Your task to perform on an android device: Open maps Image 0: 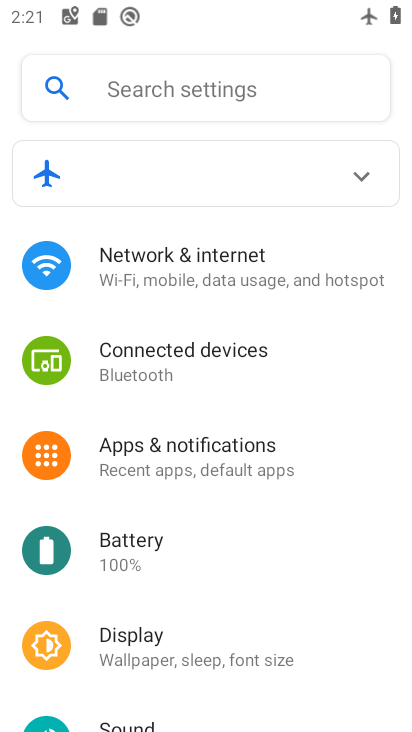
Step 0: press home button
Your task to perform on an android device: Open maps Image 1: 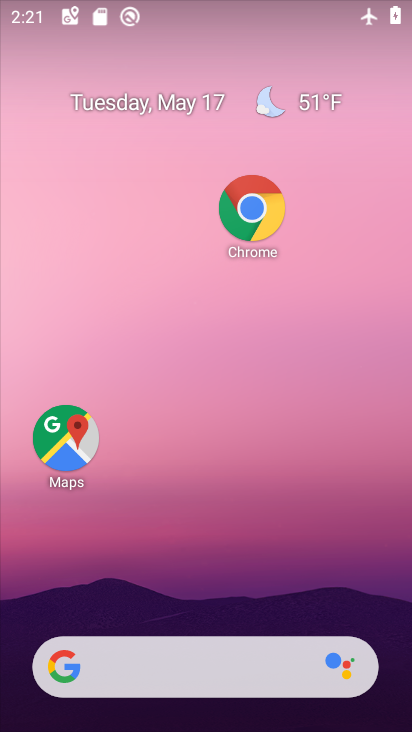
Step 1: click (84, 445)
Your task to perform on an android device: Open maps Image 2: 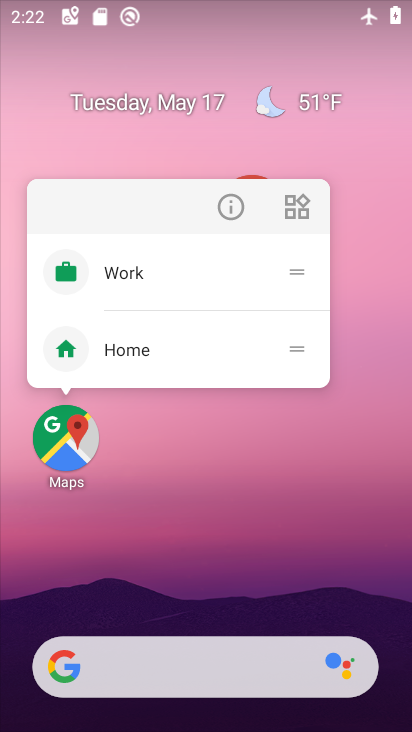
Step 2: click (54, 443)
Your task to perform on an android device: Open maps Image 3: 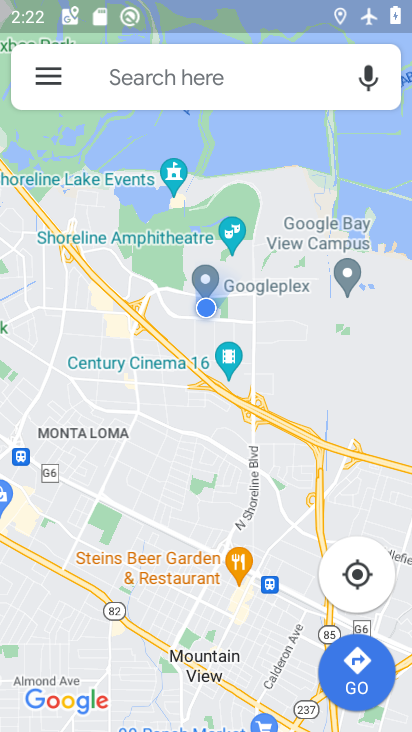
Step 3: task complete